Your task to perform on an android device: clear all cookies in the chrome app Image 0: 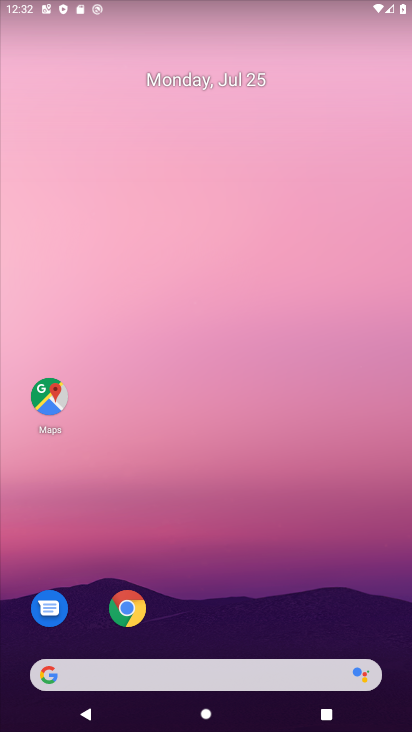
Step 0: drag from (263, 528) to (251, 96)
Your task to perform on an android device: clear all cookies in the chrome app Image 1: 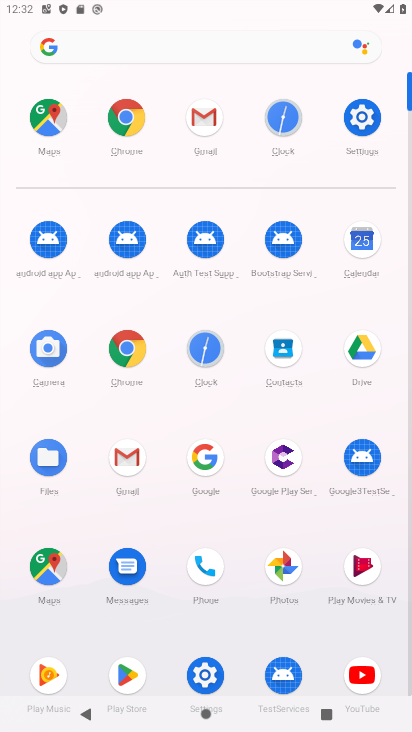
Step 1: click (131, 363)
Your task to perform on an android device: clear all cookies in the chrome app Image 2: 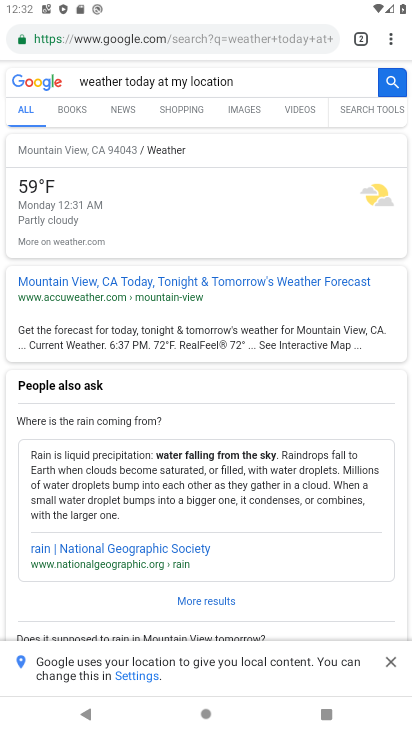
Step 2: click (393, 42)
Your task to perform on an android device: clear all cookies in the chrome app Image 3: 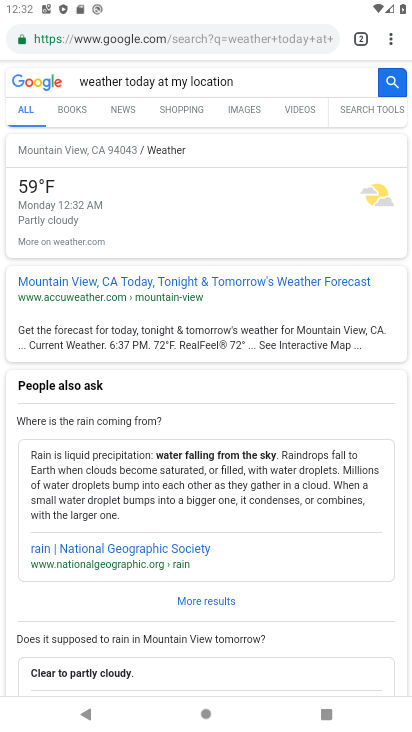
Step 3: click (385, 35)
Your task to perform on an android device: clear all cookies in the chrome app Image 4: 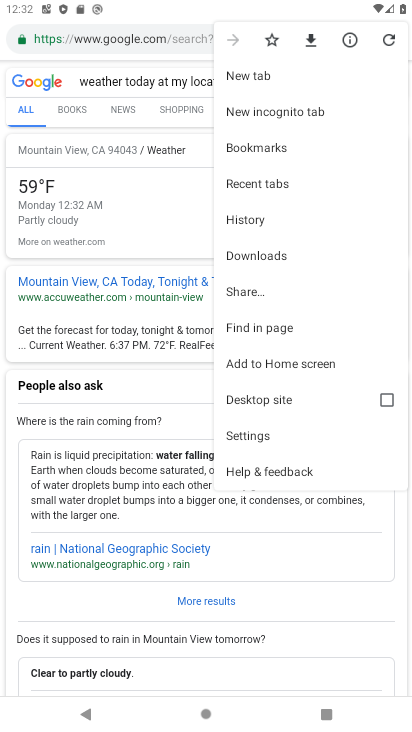
Step 4: click (280, 227)
Your task to perform on an android device: clear all cookies in the chrome app Image 5: 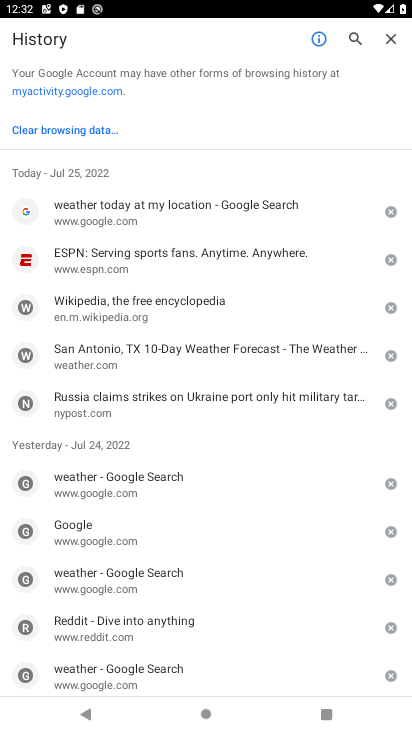
Step 5: click (102, 133)
Your task to perform on an android device: clear all cookies in the chrome app Image 6: 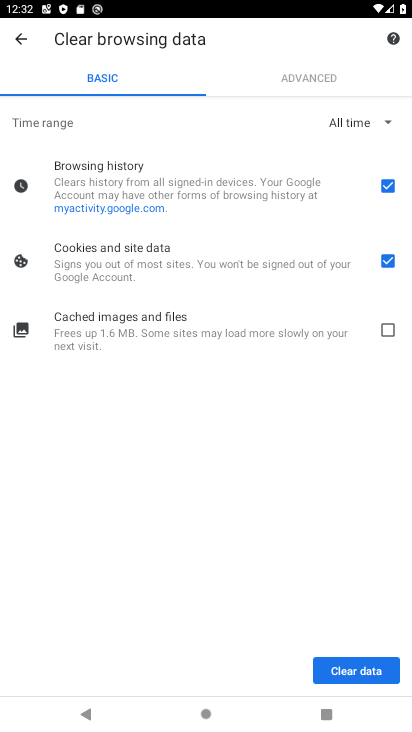
Step 6: click (385, 354)
Your task to perform on an android device: clear all cookies in the chrome app Image 7: 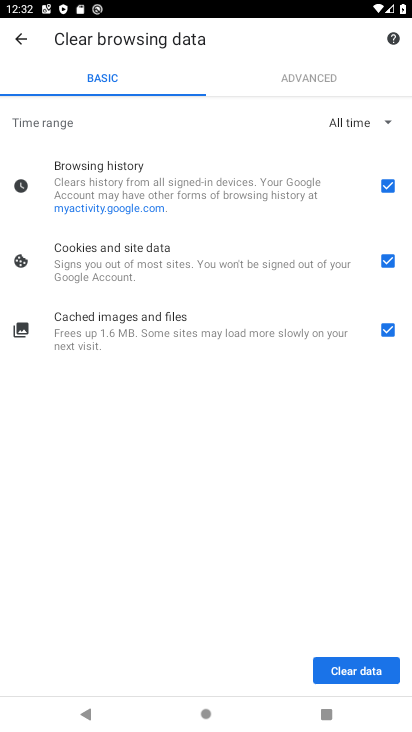
Step 7: click (398, 178)
Your task to perform on an android device: clear all cookies in the chrome app Image 8: 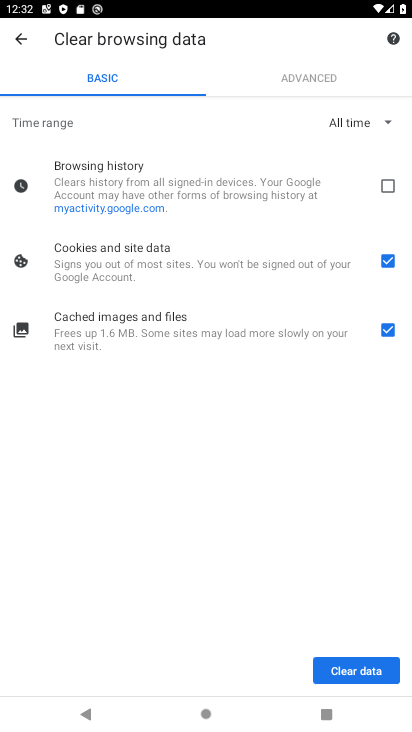
Step 8: click (364, 669)
Your task to perform on an android device: clear all cookies in the chrome app Image 9: 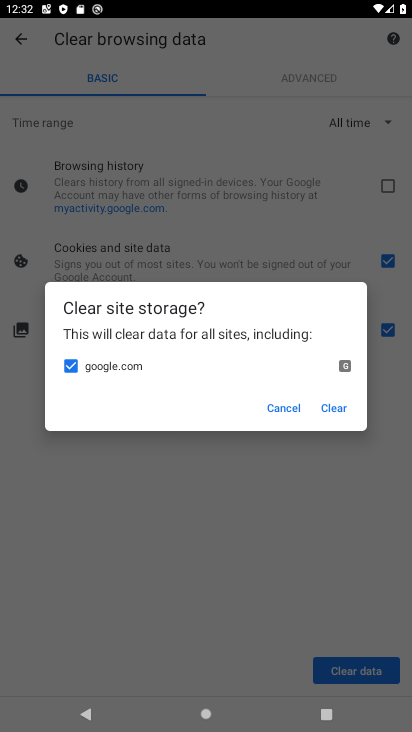
Step 9: click (329, 408)
Your task to perform on an android device: clear all cookies in the chrome app Image 10: 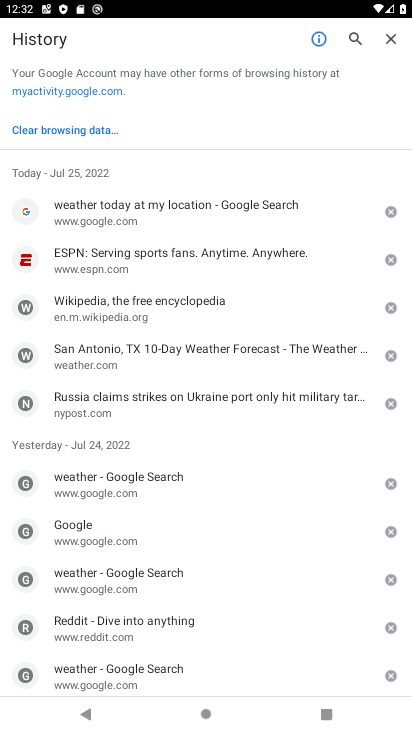
Step 10: task complete